Your task to perform on an android device: turn on translation in the chrome app Image 0: 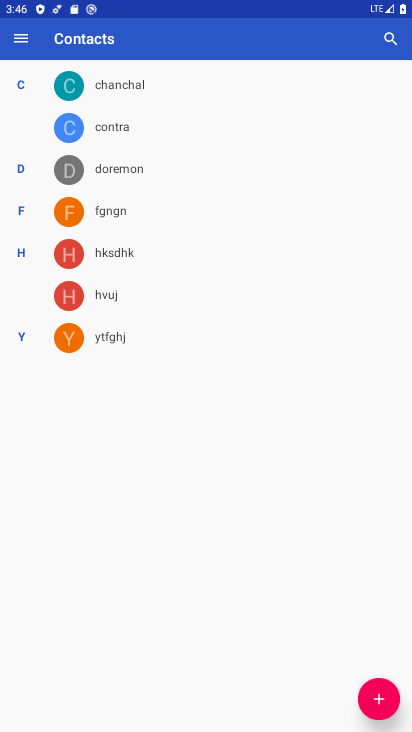
Step 0: press home button
Your task to perform on an android device: turn on translation in the chrome app Image 1: 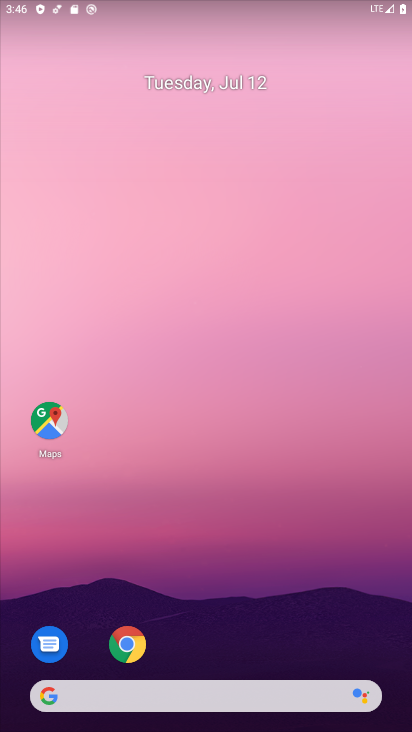
Step 1: click (135, 646)
Your task to perform on an android device: turn on translation in the chrome app Image 2: 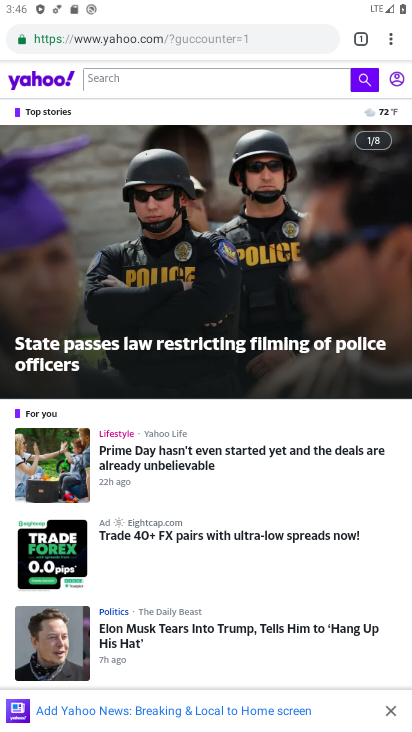
Step 2: click (392, 41)
Your task to perform on an android device: turn on translation in the chrome app Image 3: 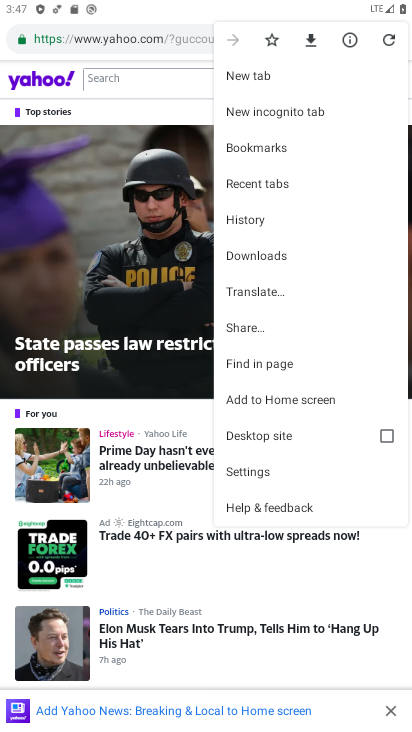
Step 3: click (264, 473)
Your task to perform on an android device: turn on translation in the chrome app Image 4: 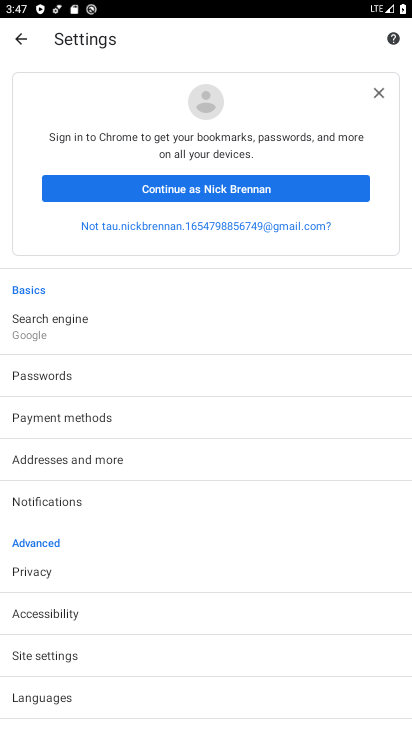
Step 4: click (91, 694)
Your task to perform on an android device: turn on translation in the chrome app Image 5: 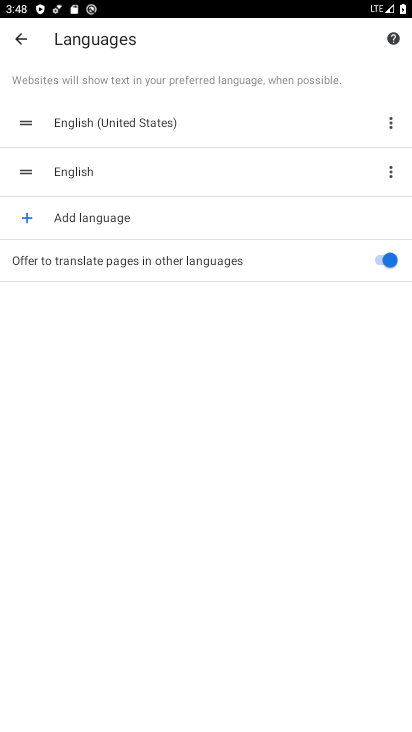
Step 5: task complete